Your task to perform on an android device: Search for Mexican restaurants on Maps Image 0: 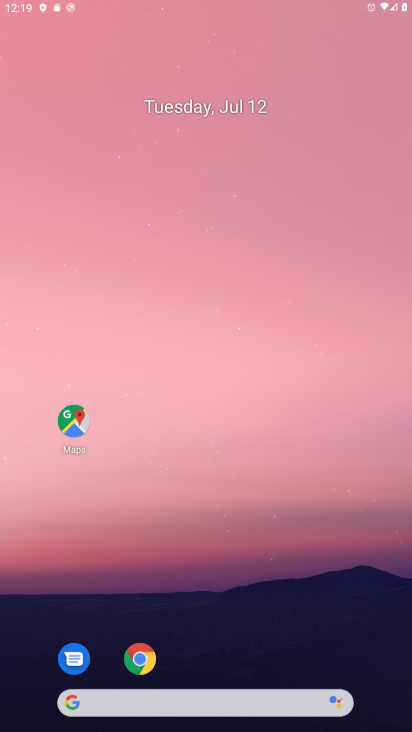
Step 0: drag from (232, 254) to (241, 181)
Your task to perform on an android device: Search for Mexican restaurants on Maps Image 1: 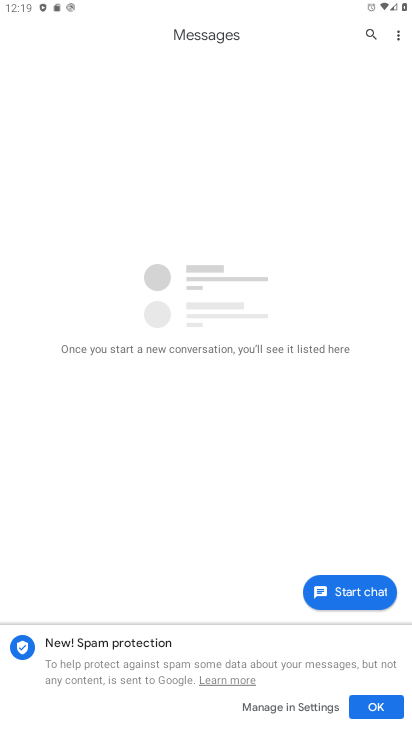
Step 1: press home button
Your task to perform on an android device: Search for Mexican restaurants on Maps Image 2: 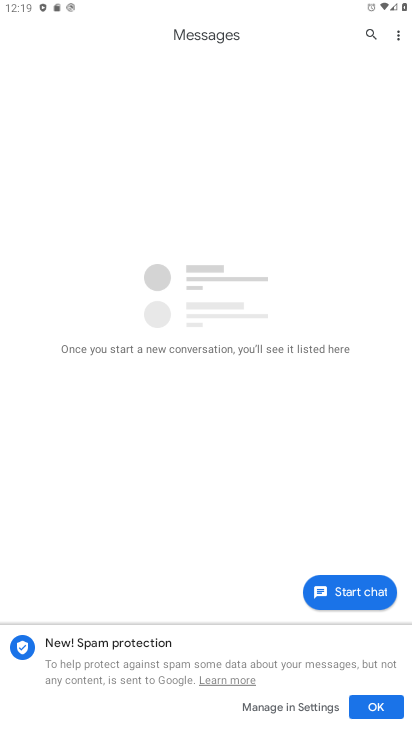
Step 2: drag from (268, 557) to (376, 66)
Your task to perform on an android device: Search for Mexican restaurants on Maps Image 3: 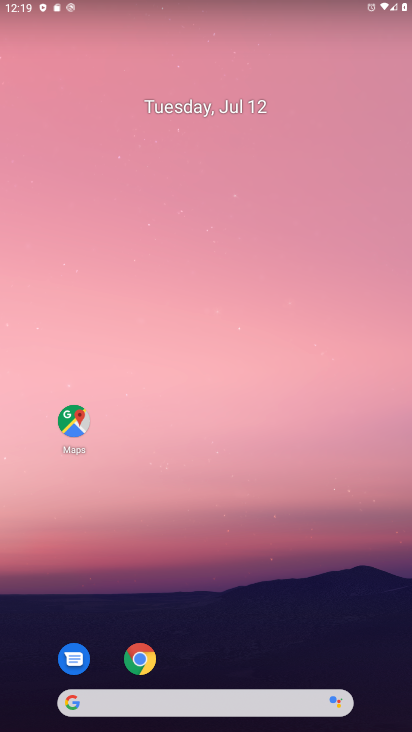
Step 3: drag from (262, 507) to (234, 187)
Your task to perform on an android device: Search for Mexican restaurants on Maps Image 4: 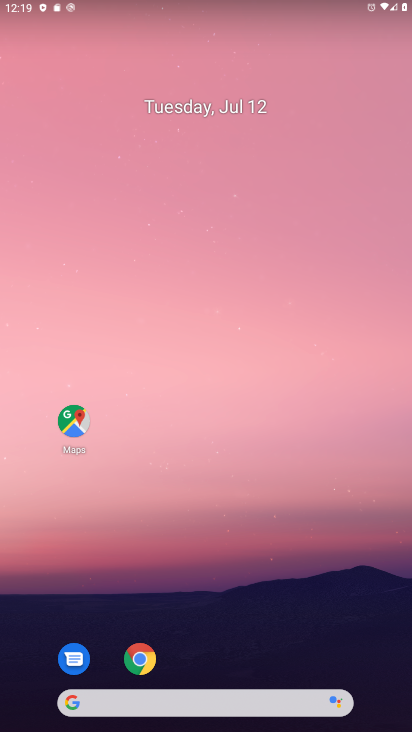
Step 4: click (77, 418)
Your task to perform on an android device: Search for Mexican restaurants on Maps Image 5: 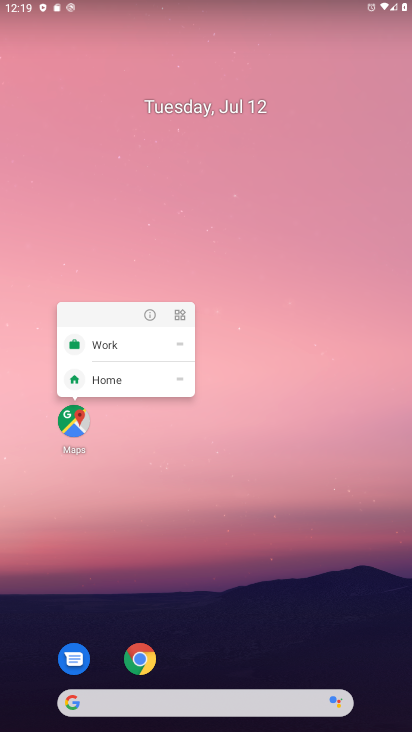
Step 5: click (153, 318)
Your task to perform on an android device: Search for Mexican restaurants on Maps Image 6: 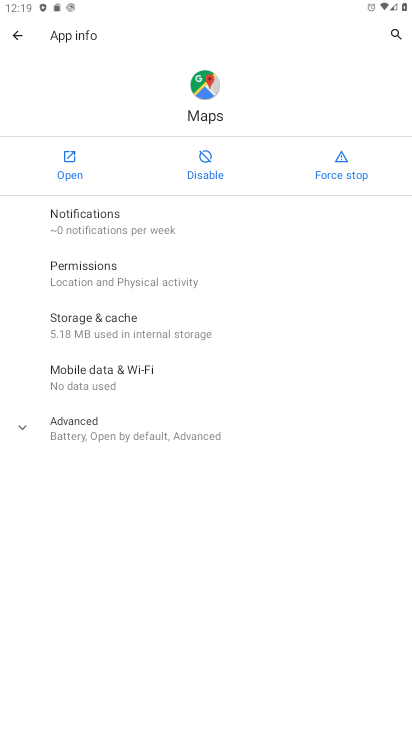
Step 6: click (68, 167)
Your task to perform on an android device: Search for Mexican restaurants on Maps Image 7: 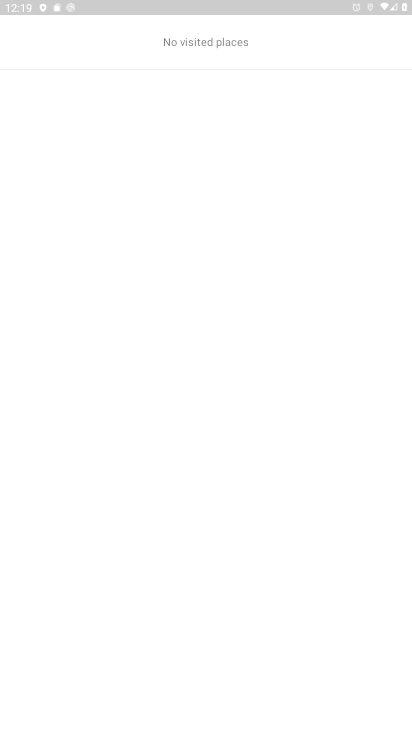
Step 7: click (128, 171)
Your task to perform on an android device: Search for Mexican restaurants on Maps Image 8: 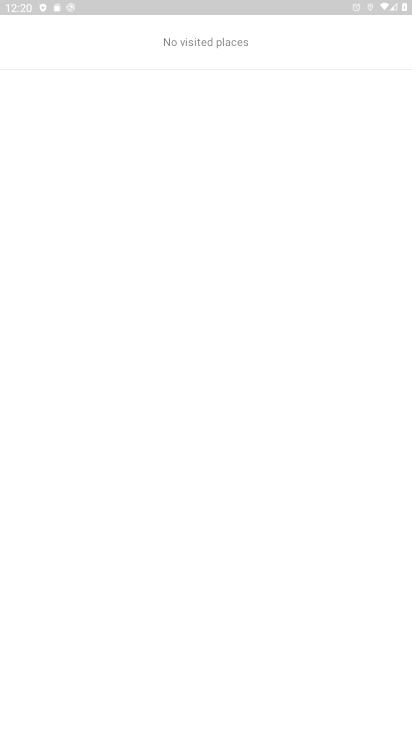
Step 8: click (128, 149)
Your task to perform on an android device: Search for Mexican restaurants on Maps Image 9: 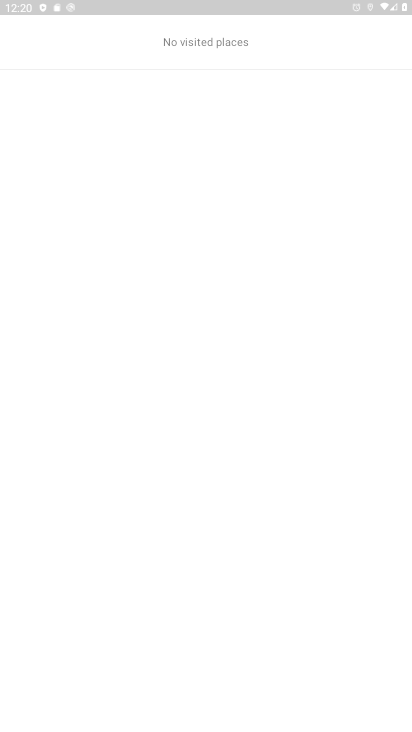
Step 9: press home button
Your task to perform on an android device: Search for Mexican restaurants on Maps Image 10: 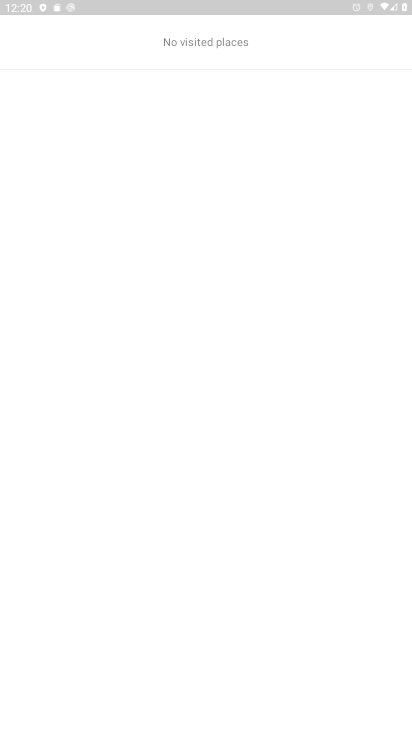
Step 10: drag from (241, 565) to (374, 2)
Your task to perform on an android device: Search for Mexican restaurants on Maps Image 11: 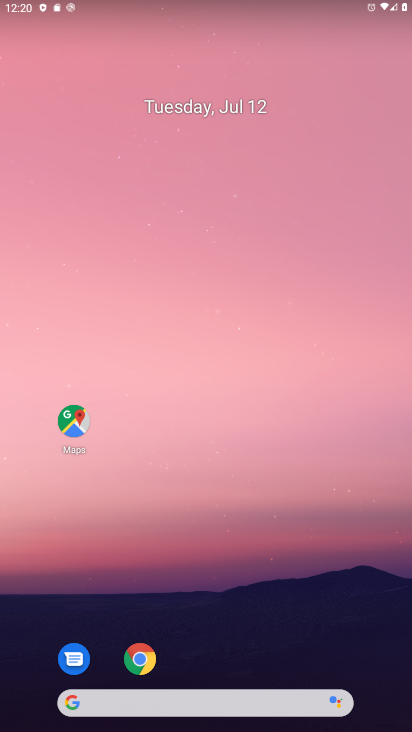
Step 11: drag from (211, 645) to (268, 41)
Your task to perform on an android device: Search for Mexican restaurants on Maps Image 12: 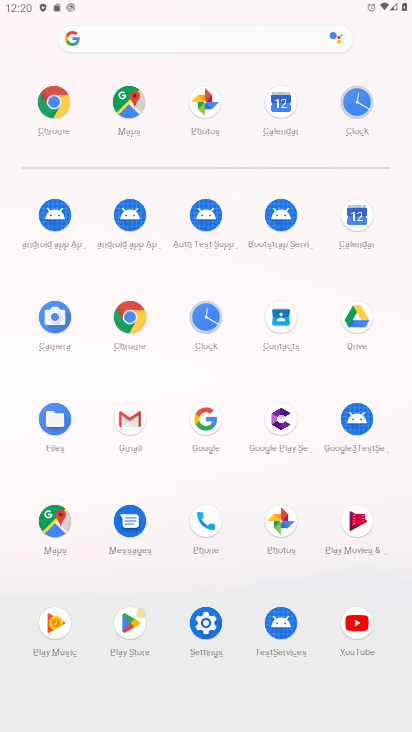
Step 12: click (51, 531)
Your task to perform on an android device: Search for Mexican restaurants on Maps Image 13: 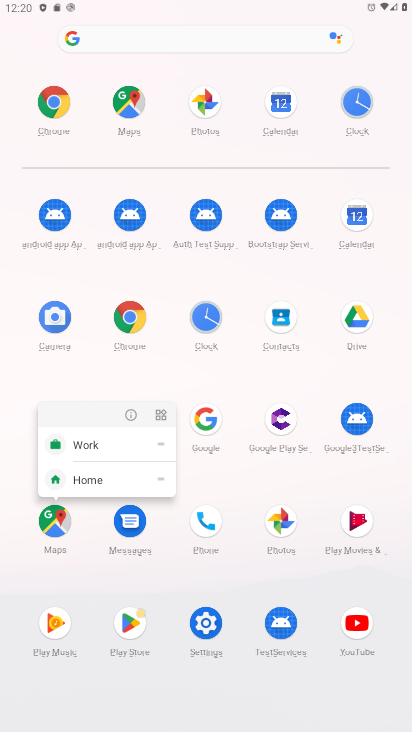
Step 13: click (132, 413)
Your task to perform on an android device: Search for Mexican restaurants on Maps Image 14: 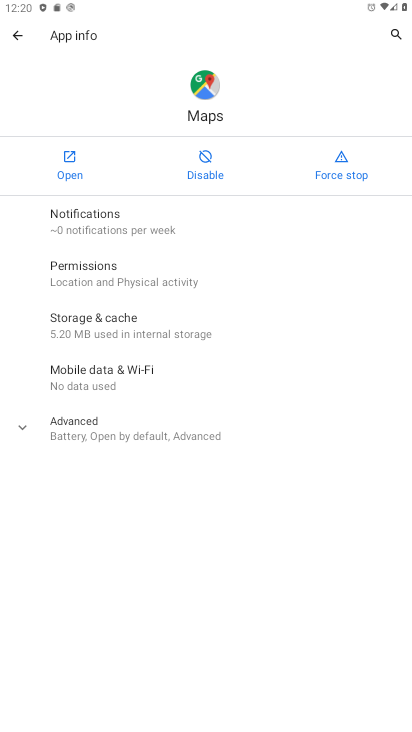
Step 14: click (59, 163)
Your task to perform on an android device: Search for Mexican restaurants on Maps Image 15: 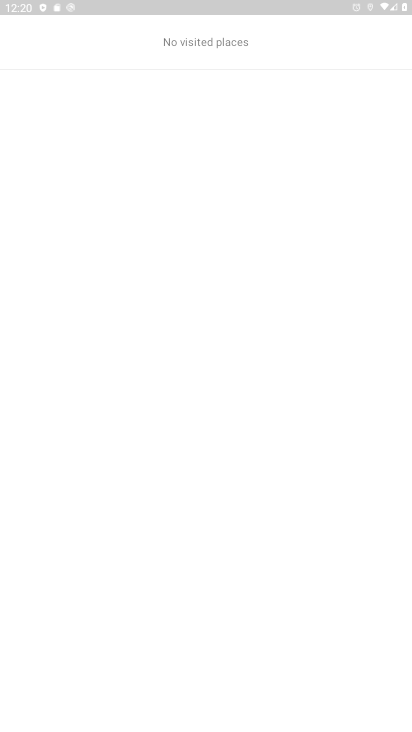
Step 15: press back button
Your task to perform on an android device: Search for Mexican restaurants on Maps Image 16: 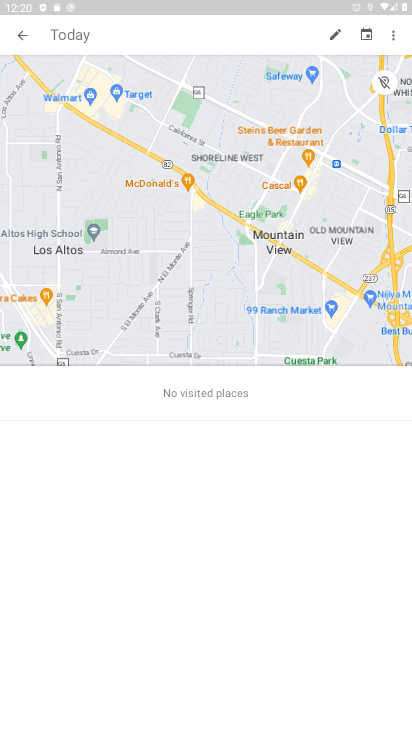
Step 16: click (18, 38)
Your task to perform on an android device: Search for Mexican restaurants on Maps Image 17: 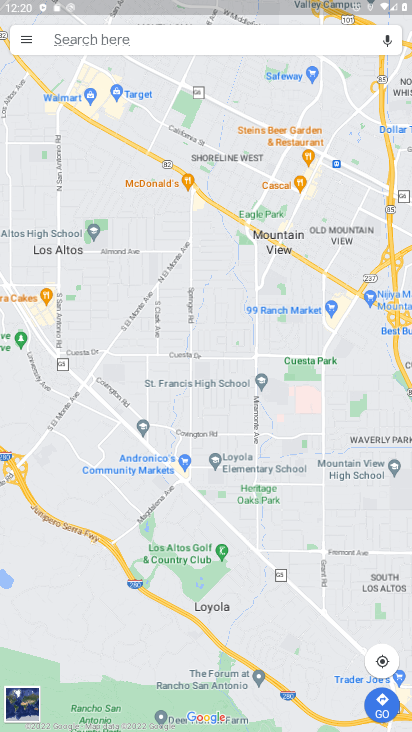
Step 17: click (137, 33)
Your task to perform on an android device: Search for Mexican restaurants on Maps Image 18: 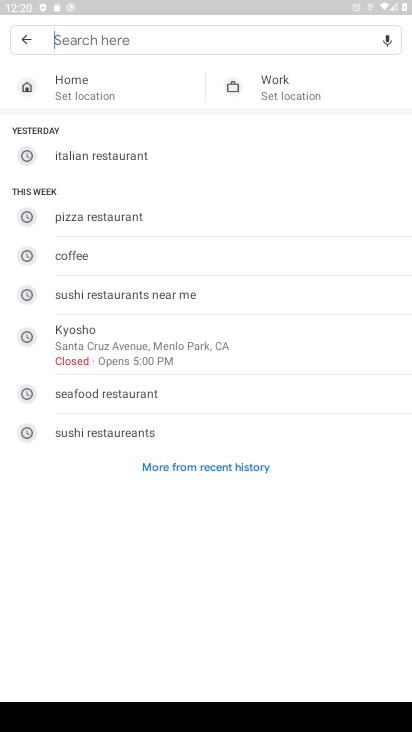
Step 18: type "Mexican restaurants"
Your task to perform on an android device: Search for Mexican restaurants on Maps Image 19: 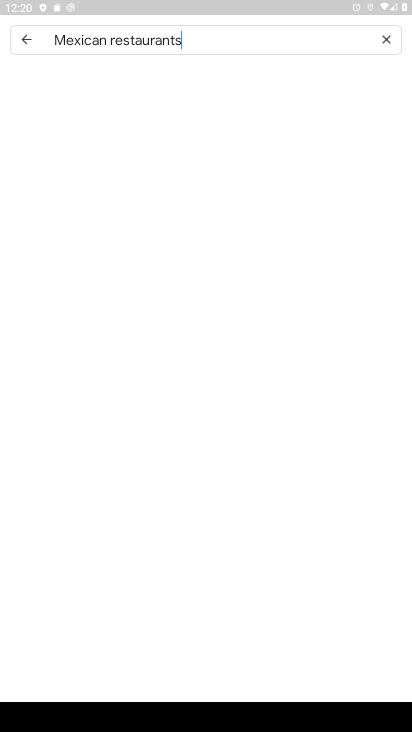
Step 19: type ""
Your task to perform on an android device: Search for Mexican restaurants on Maps Image 20: 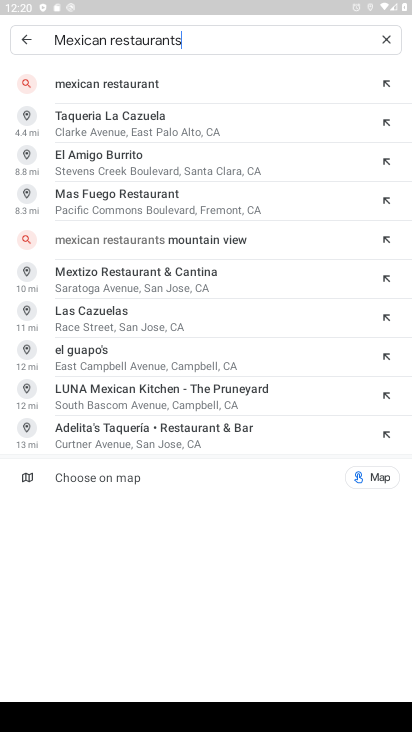
Step 20: click (140, 80)
Your task to perform on an android device: Search for Mexican restaurants on Maps Image 21: 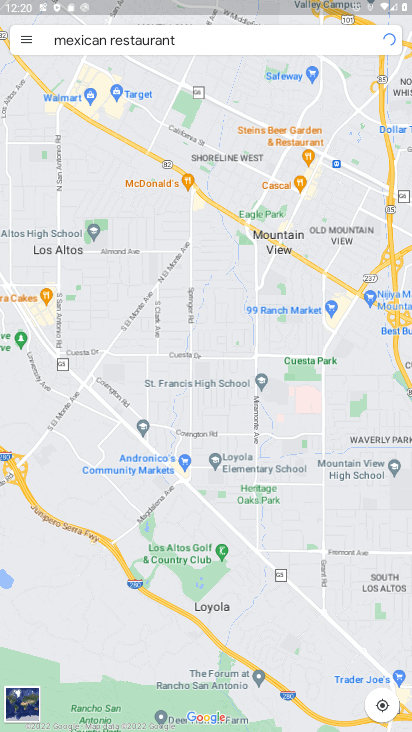
Step 21: task complete